Your task to perform on an android device: Is it going to rain today? Image 0: 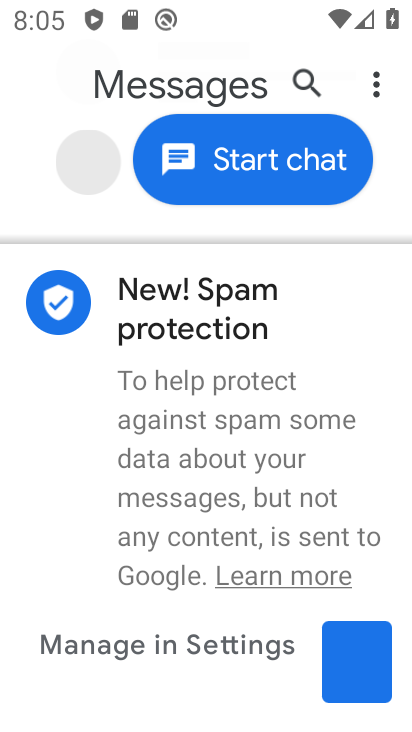
Step 0: press home button
Your task to perform on an android device: Is it going to rain today? Image 1: 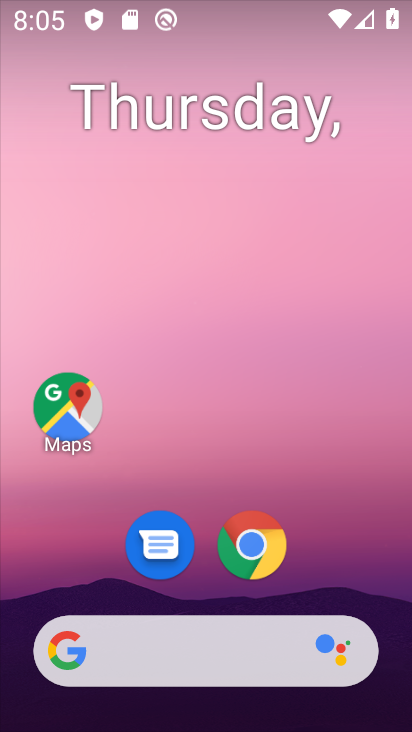
Step 1: drag from (340, 445) to (345, 211)
Your task to perform on an android device: Is it going to rain today? Image 2: 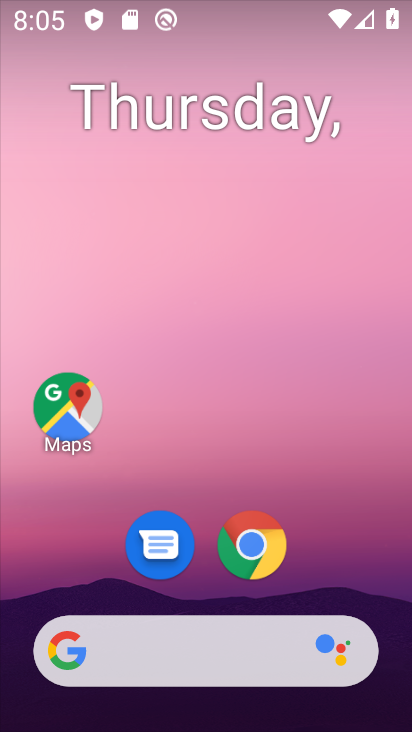
Step 2: click (251, 555)
Your task to perform on an android device: Is it going to rain today? Image 3: 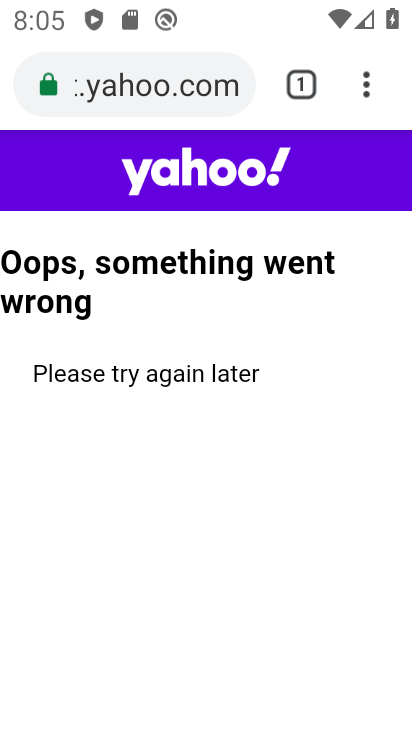
Step 3: click (355, 83)
Your task to perform on an android device: Is it going to rain today? Image 4: 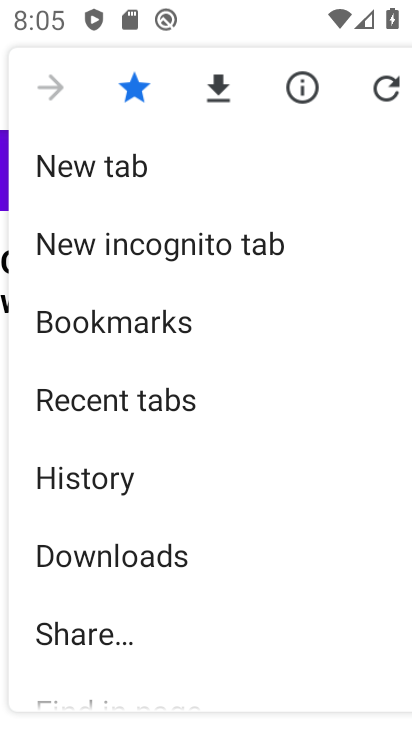
Step 4: click (122, 161)
Your task to perform on an android device: Is it going to rain today? Image 5: 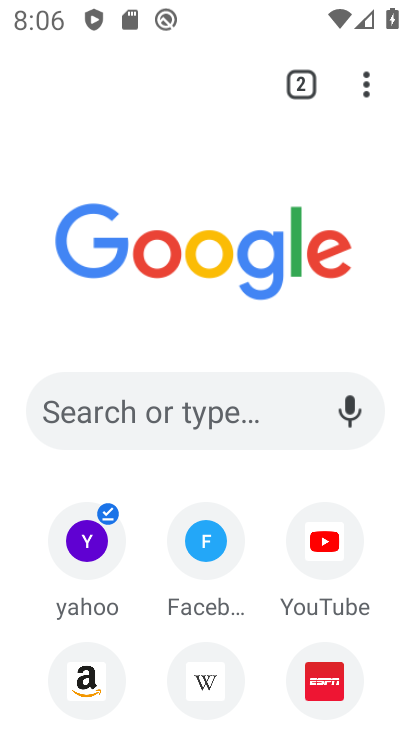
Step 5: click (256, 424)
Your task to perform on an android device: Is it going to rain today? Image 6: 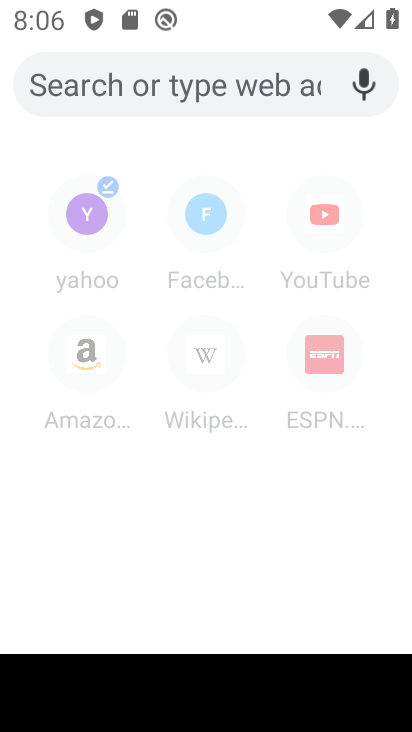
Step 6: type "Is it going to rain today?"
Your task to perform on an android device: Is it going to rain today? Image 7: 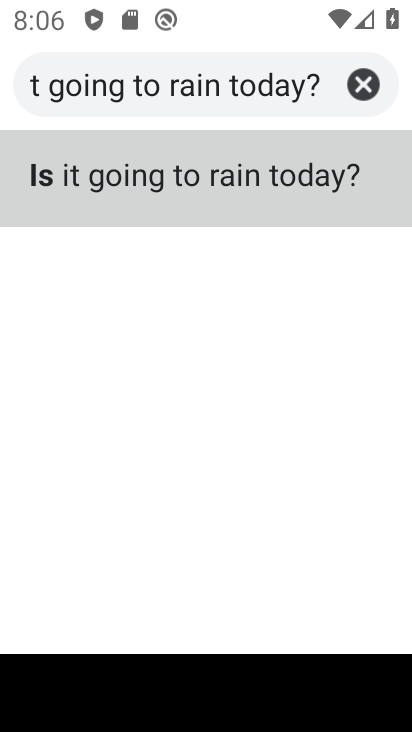
Step 7: click (209, 172)
Your task to perform on an android device: Is it going to rain today? Image 8: 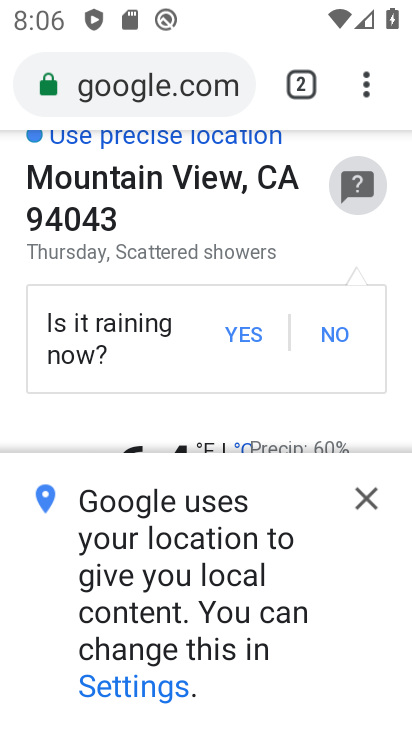
Step 8: click (374, 511)
Your task to perform on an android device: Is it going to rain today? Image 9: 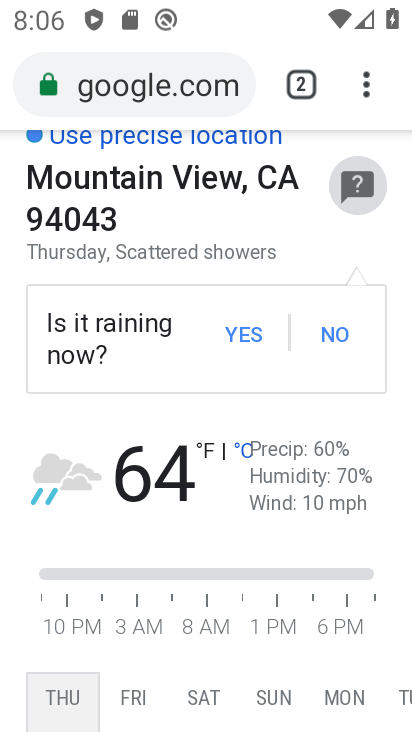
Step 9: task complete